Your task to perform on an android device: change text size in settings app Image 0: 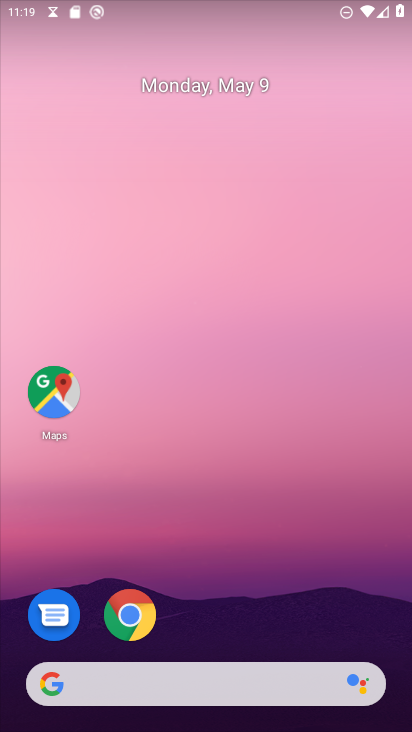
Step 0: drag from (200, 709) to (193, 68)
Your task to perform on an android device: change text size in settings app Image 1: 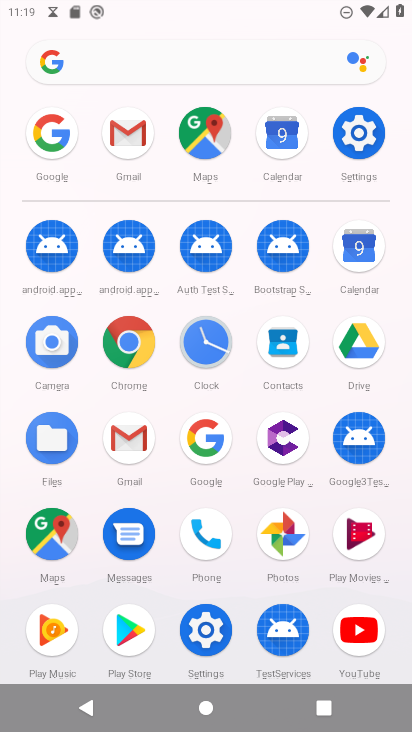
Step 1: click (354, 130)
Your task to perform on an android device: change text size in settings app Image 2: 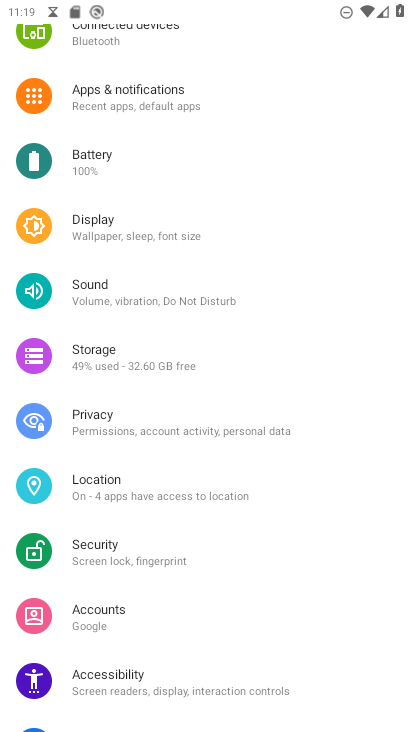
Step 2: drag from (184, 681) to (180, 295)
Your task to perform on an android device: change text size in settings app Image 3: 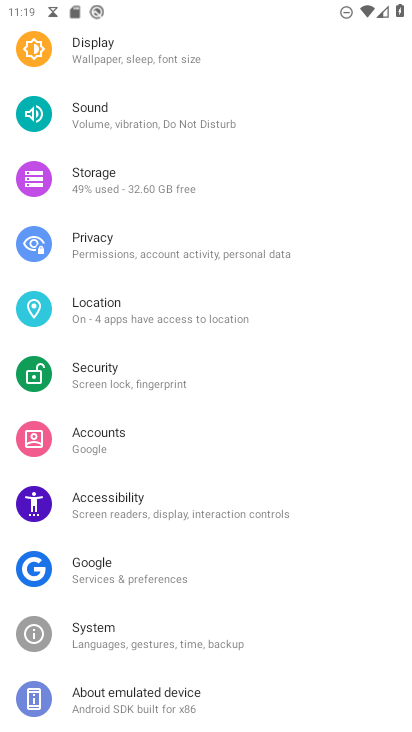
Step 3: drag from (250, 185) to (244, 528)
Your task to perform on an android device: change text size in settings app Image 4: 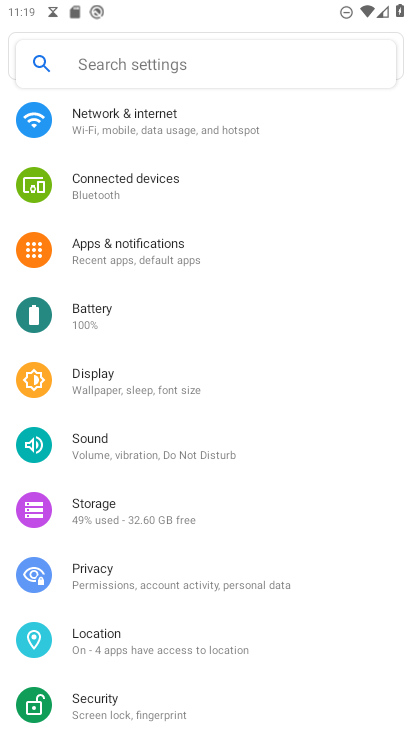
Step 4: click (148, 388)
Your task to perform on an android device: change text size in settings app Image 5: 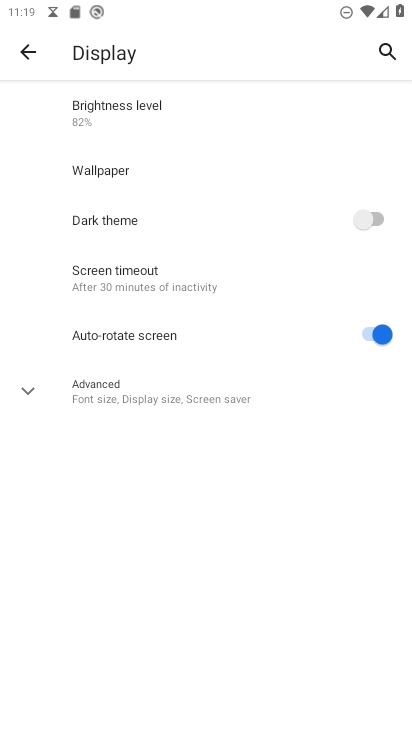
Step 5: click (152, 392)
Your task to perform on an android device: change text size in settings app Image 6: 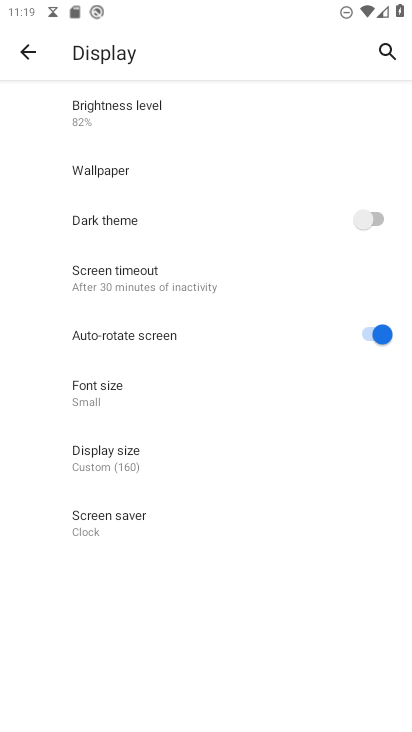
Step 6: click (98, 385)
Your task to perform on an android device: change text size in settings app Image 7: 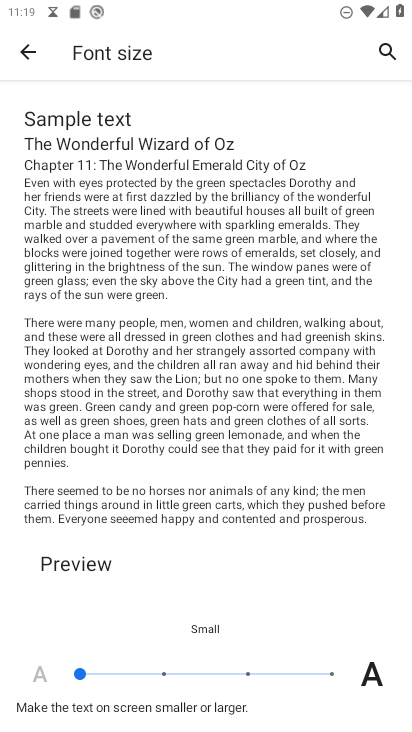
Step 7: click (161, 671)
Your task to perform on an android device: change text size in settings app Image 8: 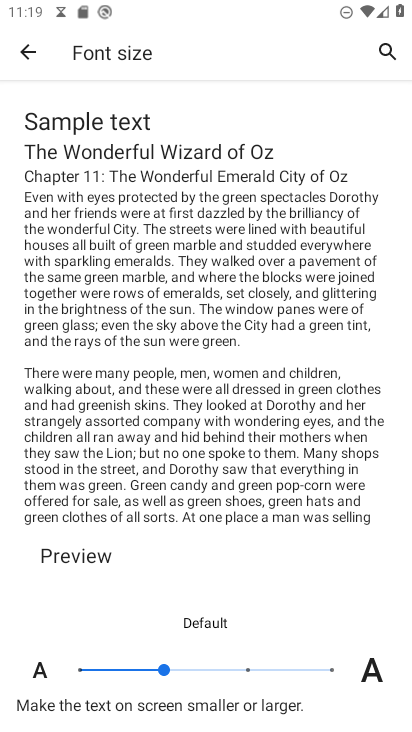
Step 8: task complete